Your task to perform on an android device: delete the emails in spam in the gmail app Image 0: 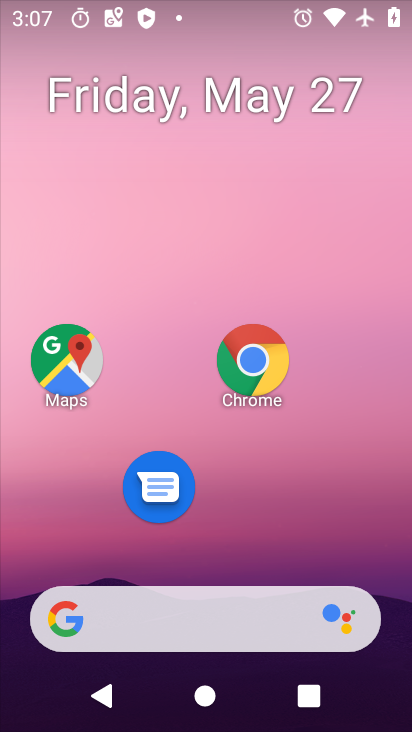
Step 0: drag from (224, 546) to (243, 69)
Your task to perform on an android device: delete the emails in spam in the gmail app Image 1: 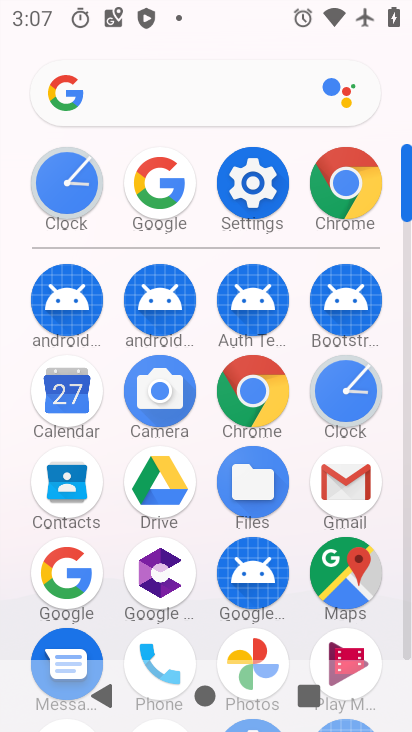
Step 1: click (348, 485)
Your task to perform on an android device: delete the emails in spam in the gmail app Image 2: 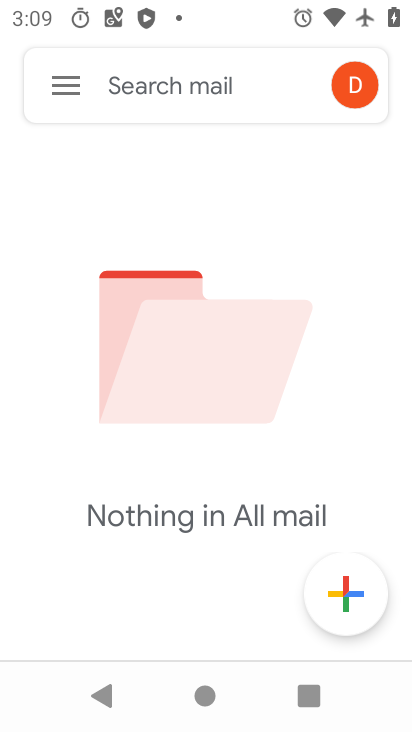
Step 2: task complete